Your task to perform on an android device: empty trash in the gmail app Image 0: 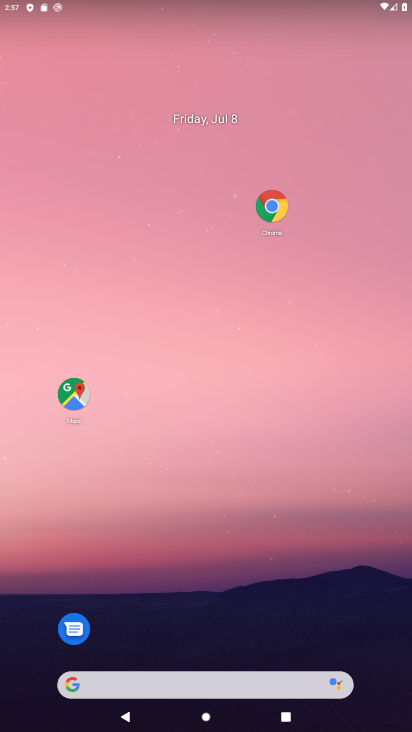
Step 0: drag from (156, 624) to (154, 139)
Your task to perform on an android device: empty trash in the gmail app Image 1: 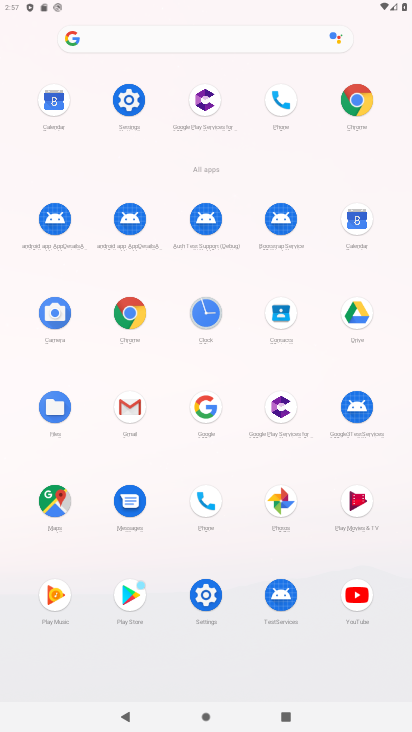
Step 1: click (139, 394)
Your task to perform on an android device: empty trash in the gmail app Image 2: 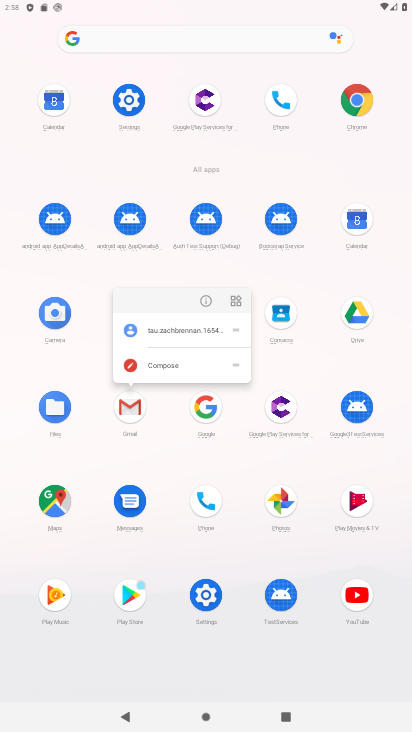
Step 2: click (205, 296)
Your task to perform on an android device: empty trash in the gmail app Image 3: 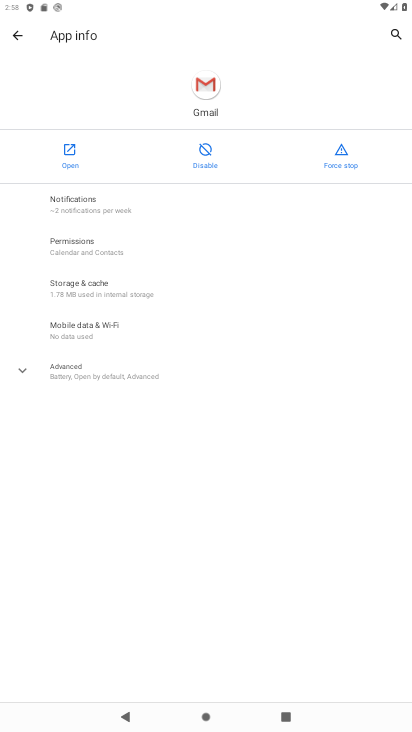
Step 3: drag from (17, 509) to (110, 193)
Your task to perform on an android device: empty trash in the gmail app Image 4: 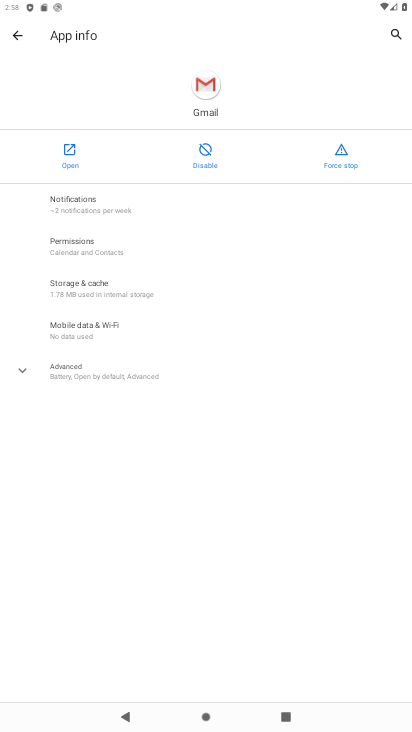
Step 4: click (60, 149)
Your task to perform on an android device: empty trash in the gmail app Image 5: 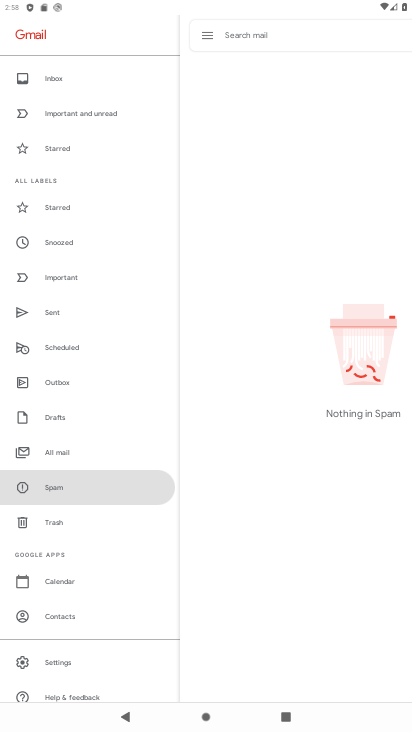
Step 5: click (53, 525)
Your task to perform on an android device: empty trash in the gmail app Image 6: 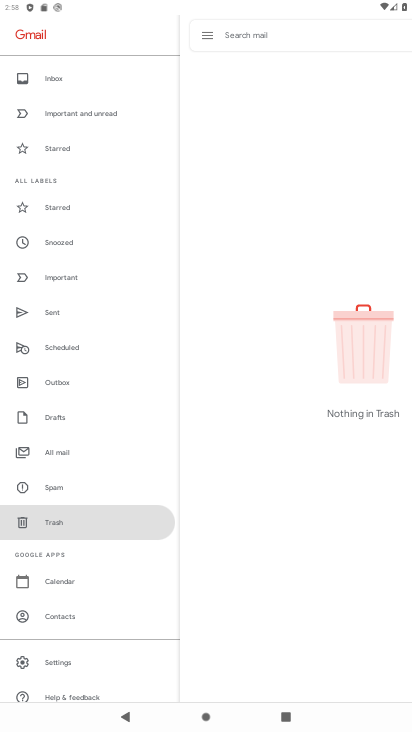
Step 6: click (26, 524)
Your task to perform on an android device: empty trash in the gmail app Image 7: 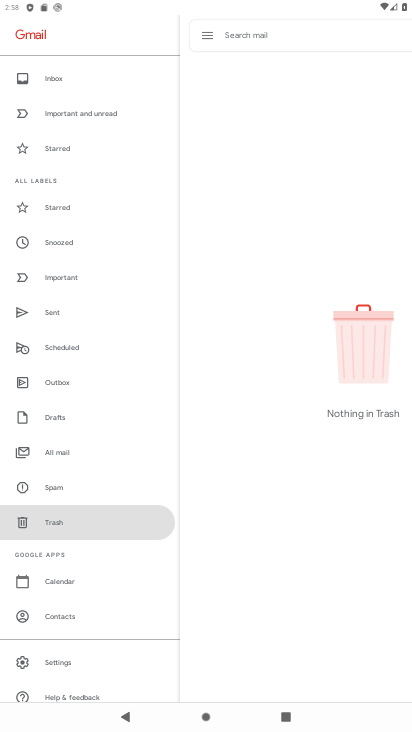
Step 7: drag from (257, 589) to (286, 388)
Your task to perform on an android device: empty trash in the gmail app Image 8: 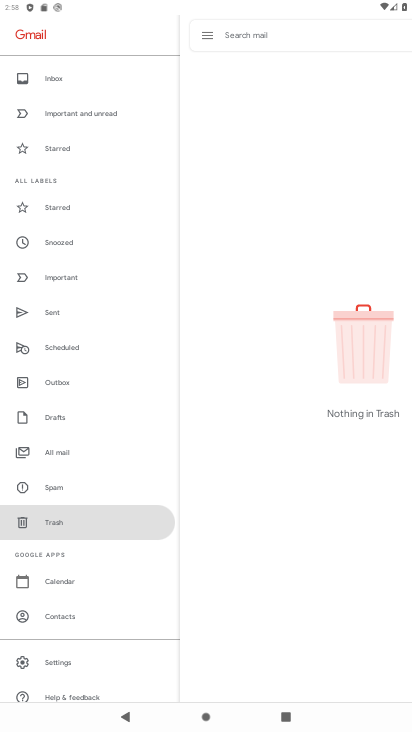
Step 8: click (69, 525)
Your task to perform on an android device: empty trash in the gmail app Image 9: 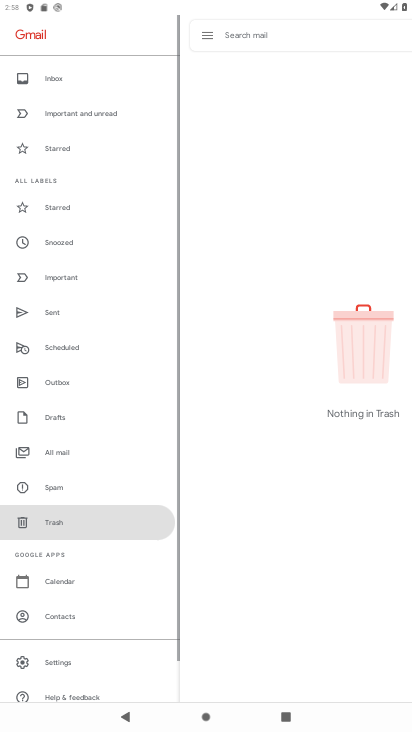
Step 9: task complete